Your task to perform on an android device: Go to battery settings Image 0: 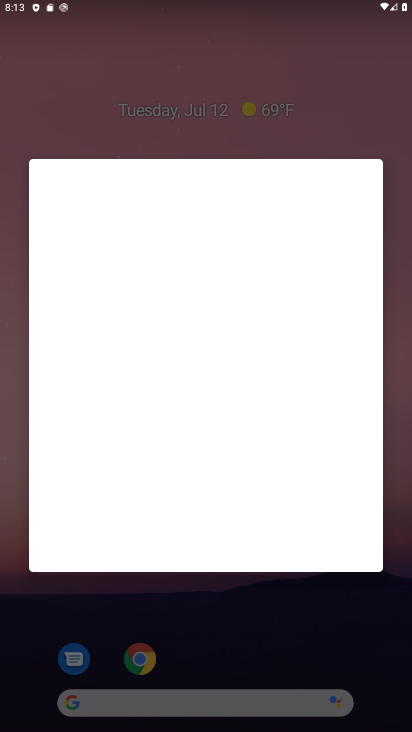
Step 0: drag from (201, 719) to (198, 404)
Your task to perform on an android device: Go to battery settings Image 1: 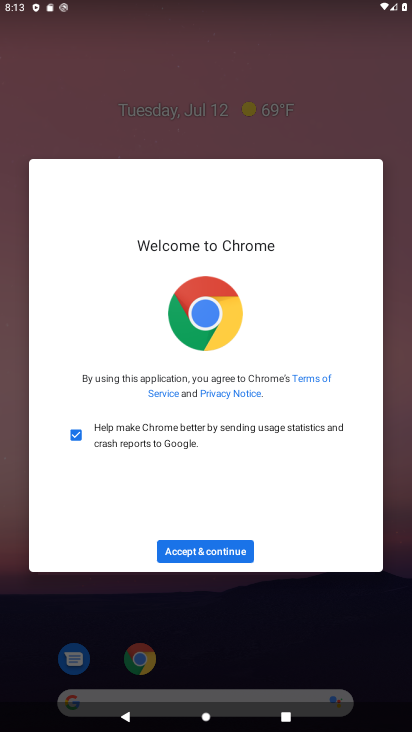
Step 1: press home button
Your task to perform on an android device: Go to battery settings Image 2: 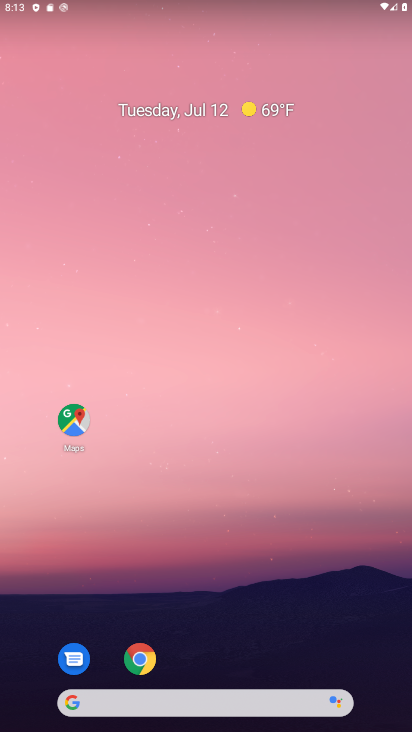
Step 2: drag from (193, 683) to (192, 285)
Your task to perform on an android device: Go to battery settings Image 3: 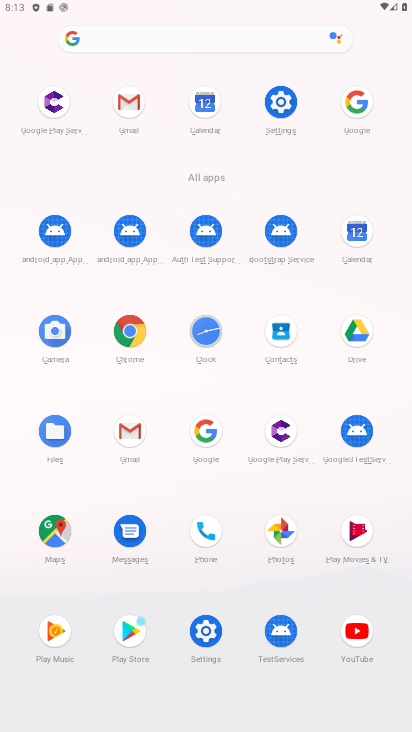
Step 3: click (286, 95)
Your task to perform on an android device: Go to battery settings Image 4: 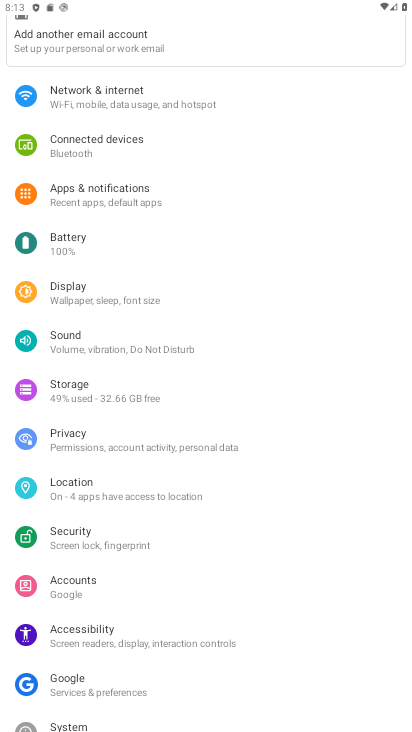
Step 4: click (66, 244)
Your task to perform on an android device: Go to battery settings Image 5: 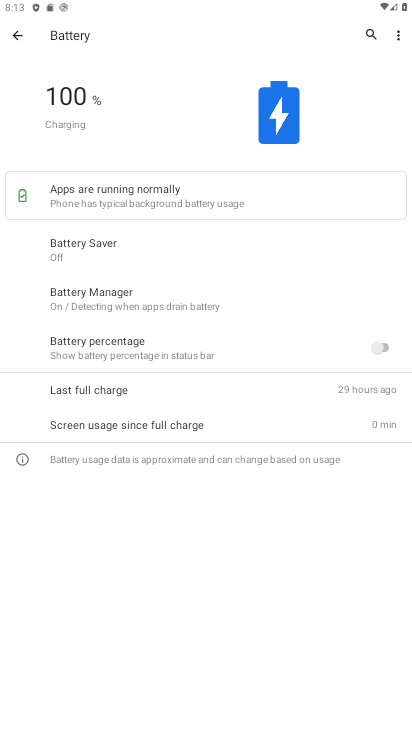
Step 5: task complete